Your task to perform on an android device: Go to CNN.com Image 0: 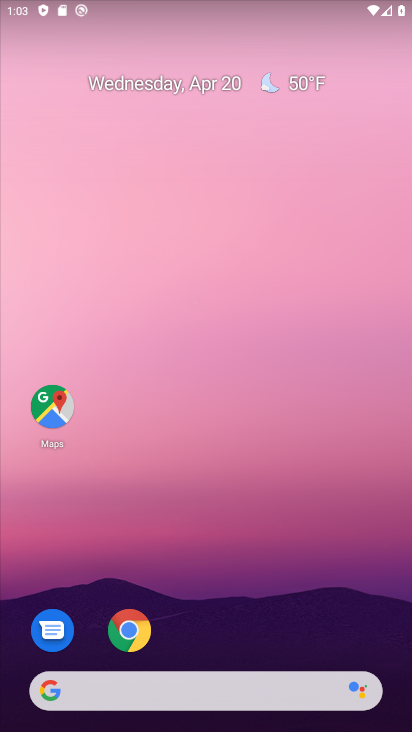
Step 0: drag from (226, 602) to (223, 173)
Your task to perform on an android device: Go to CNN.com Image 1: 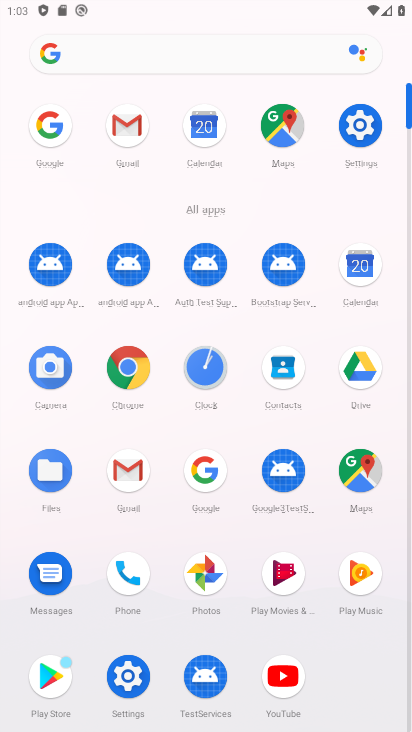
Step 1: click (48, 126)
Your task to perform on an android device: Go to CNN.com Image 2: 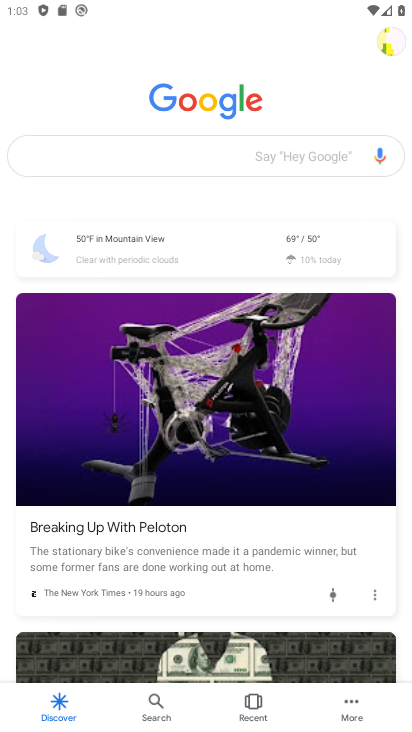
Step 2: click (177, 148)
Your task to perform on an android device: Go to CNN.com Image 3: 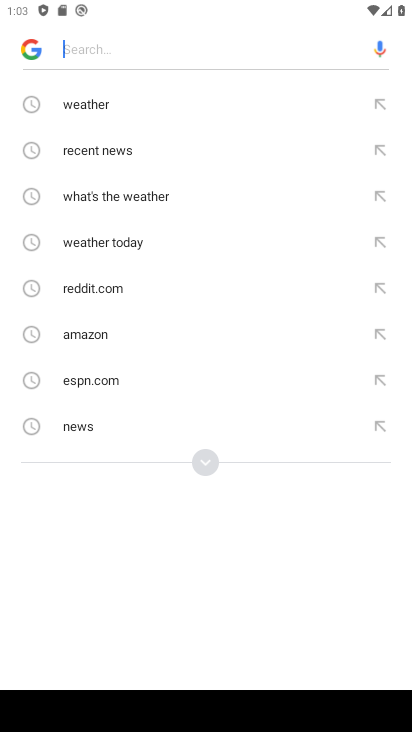
Step 3: type "cnn.com"
Your task to perform on an android device: Go to CNN.com Image 4: 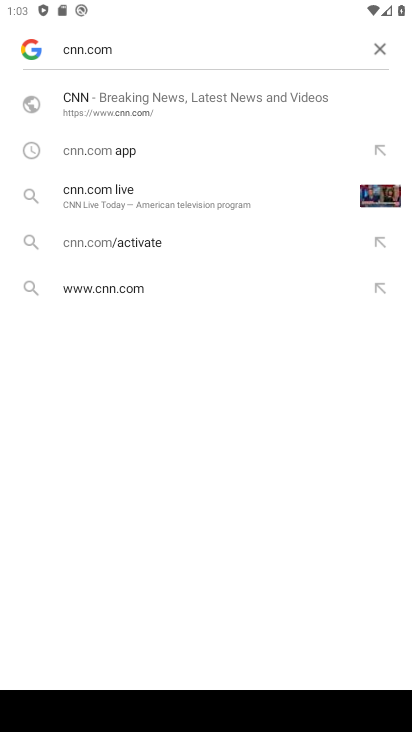
Step 4: click (126, 104)
Your task to perform on an android device: Go to CNN.com Image 5: 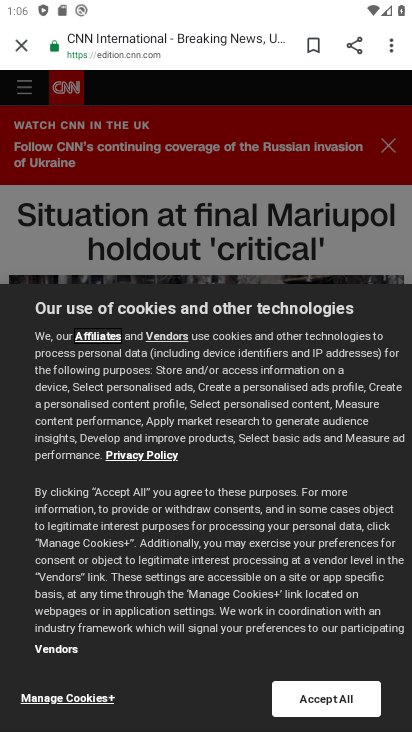
Step 5: task complete